Your task to perform on an android device: Open Amazon Image 0: 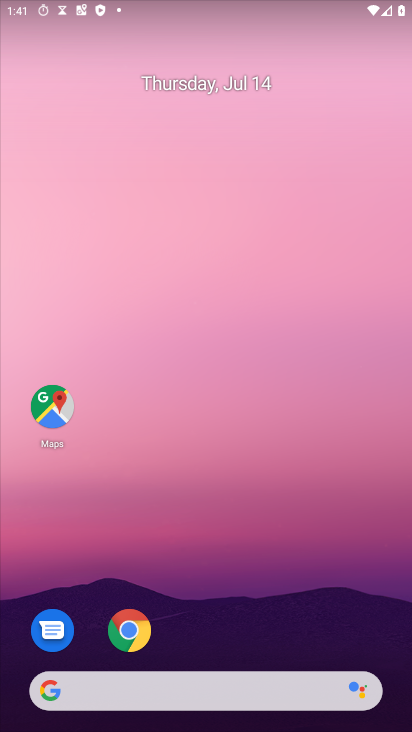
Step 0: click (141, 644)
Your task to perform on an android device: Open Amazon Image 1: 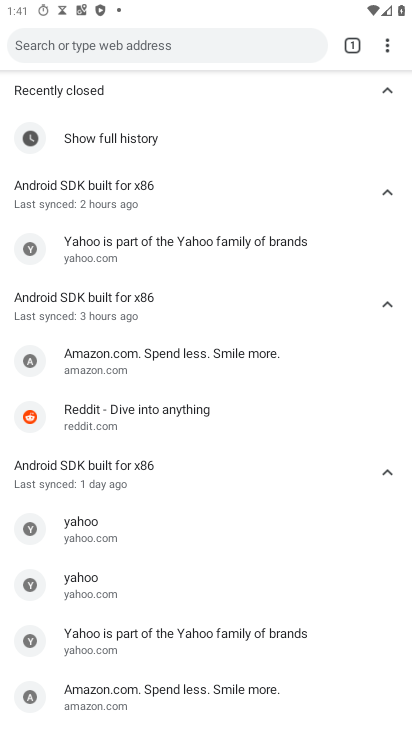
Step 1: click (207, 50)
Your task to perform on an android device: Open Amazon Image 2: 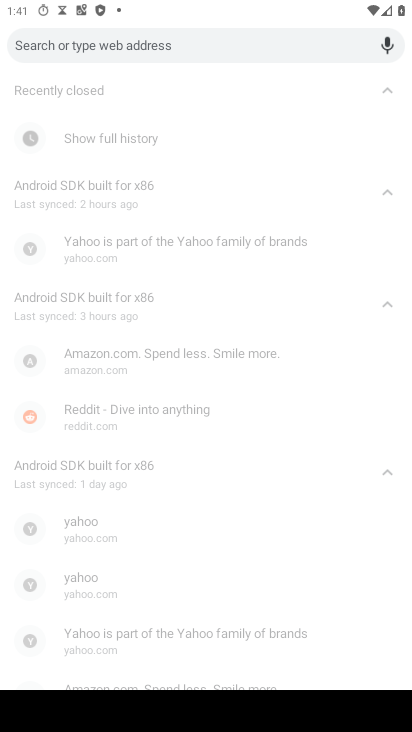
Step 2: type "amazon"
Your task to perform on an android device: Open Amazon Image 3: 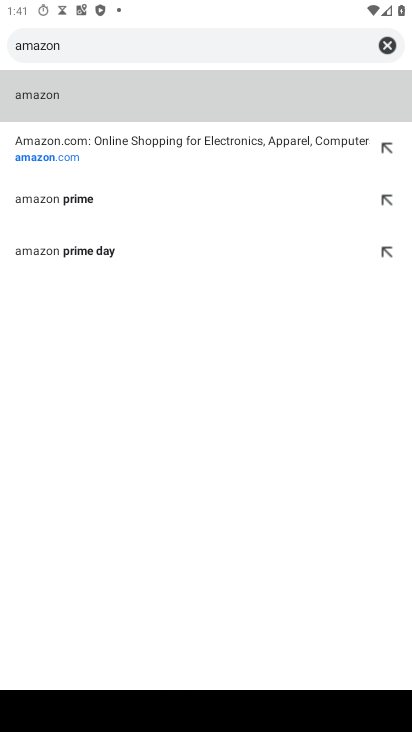
Step 3: click (99, 151)
Your task to perform on an android device: Open Amazon Image 4: 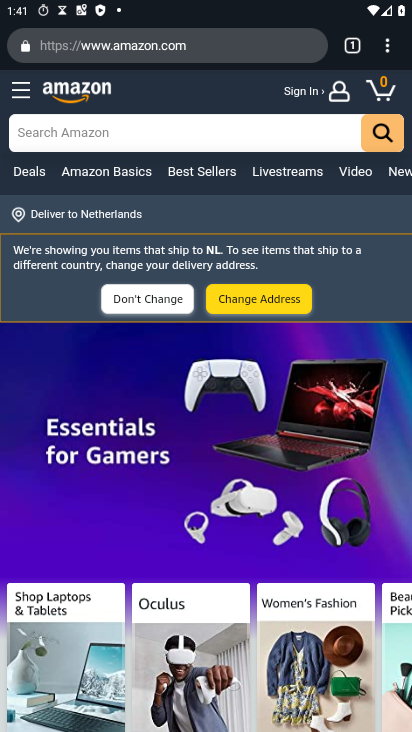
Step 4: task complete